Your task to perform on an android device: Go to Yahoo.com Image 0: 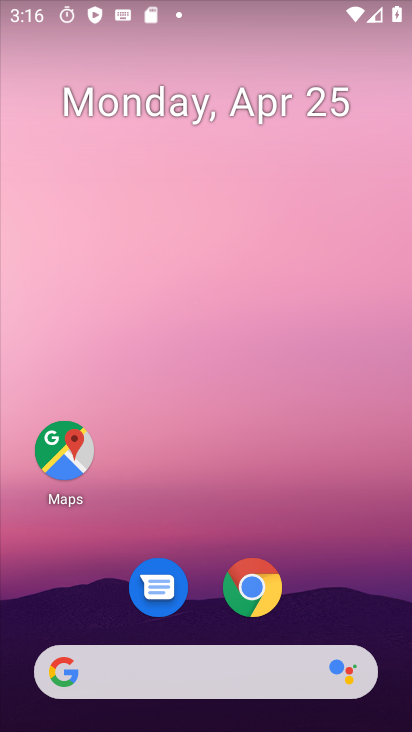
Step 0: click (247, 575)
Your task to perform on an android device: Go to Yahoo.com Image 1: 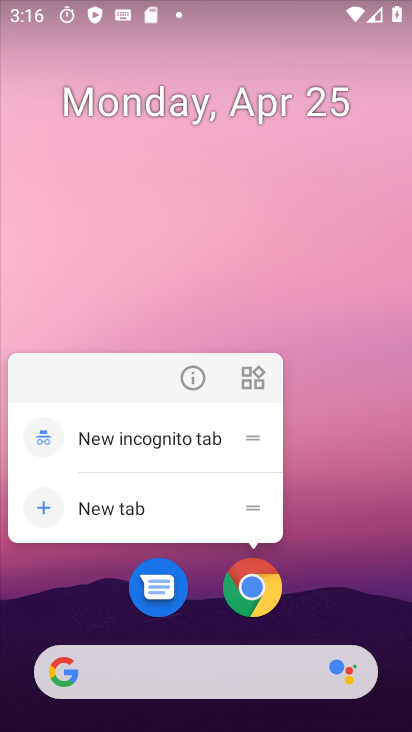
Step 1: click (251, 588)
Your task to perform on an android device: Go to Yahoo.com Image 2: 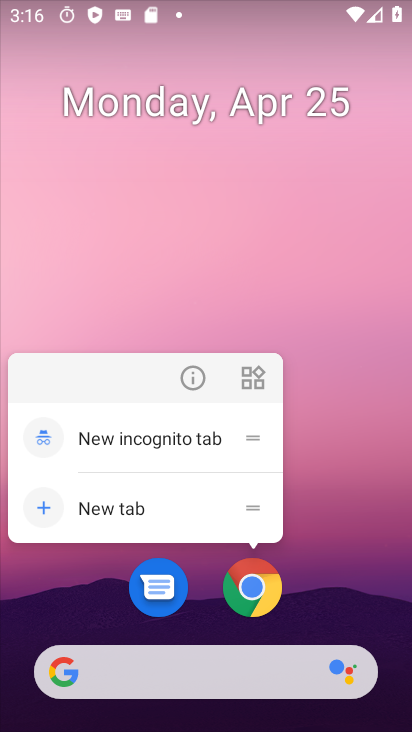
Step 2: drag from (348, 519) to (365, 90)
Your task to perform on an android device: Go to Yahoo.com Image 3: 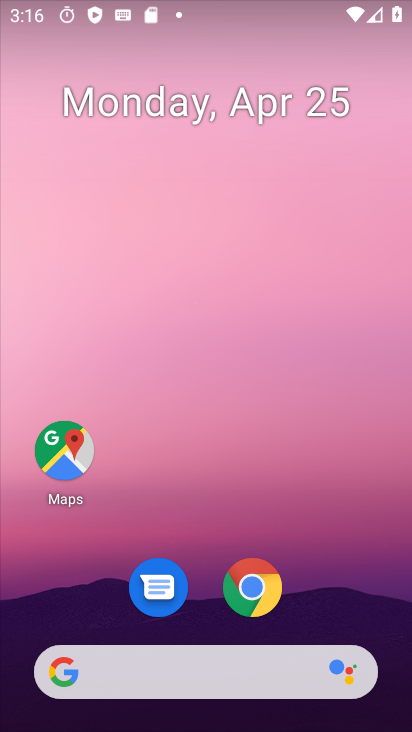
Step 3: drag from (326, 299) to (313, 99)
Your task to perform on an android device: Go to Yahoo.com Image 4: 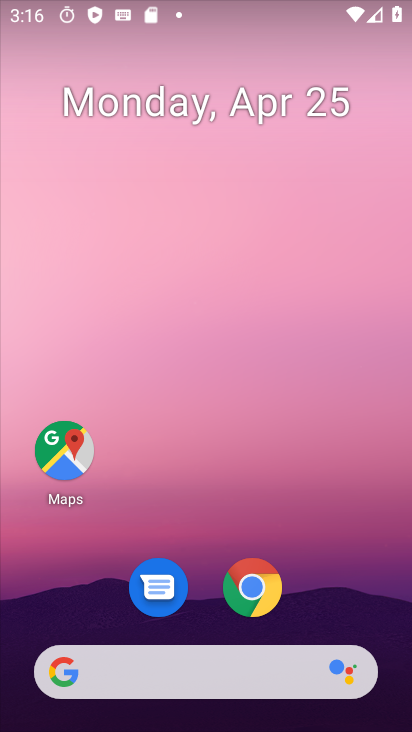
Step 4: drag from (326, 467) to (327, 77)
Your task to perform on an android device: Go to Yahoo.com Image 5: 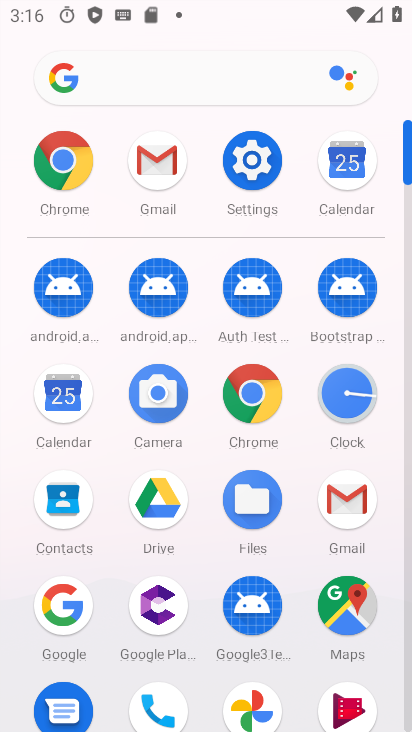
Step 5: click (248, 411)
Your task to perform on an android device: Go to Yahoo.com Image 6: 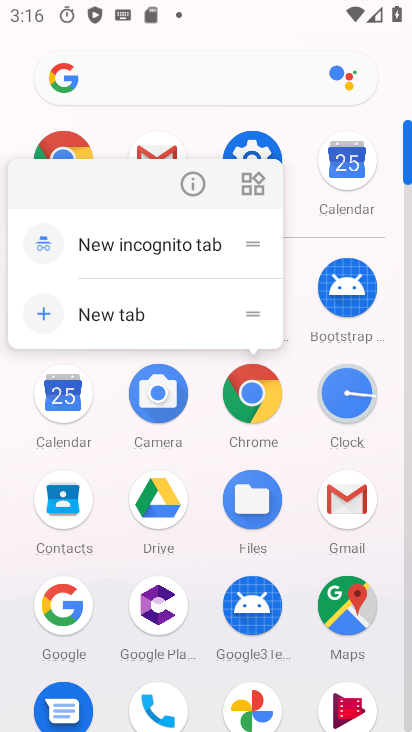
Step 6: click (252, 406)
Your task to perform on an android device: Go to Yahoo.com Image 7: 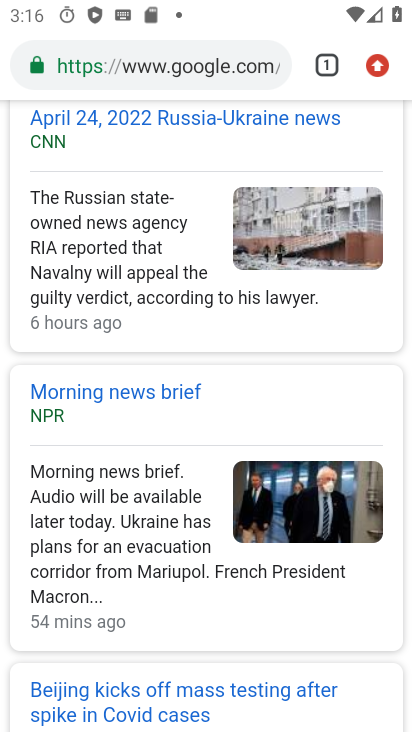
Step 7: click (169, 65)
Your task to perform on an android device: Go to Yahoo.com Image 8: 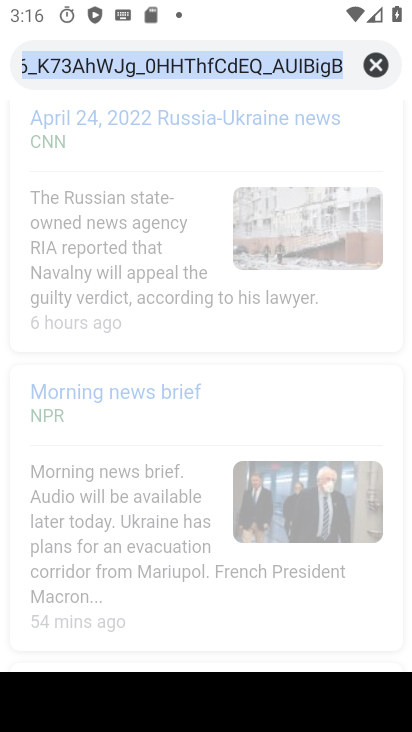
Step 8: type "yahoo.com"
Your task to perform on an android device: Go to Yahoo.com Image 9: 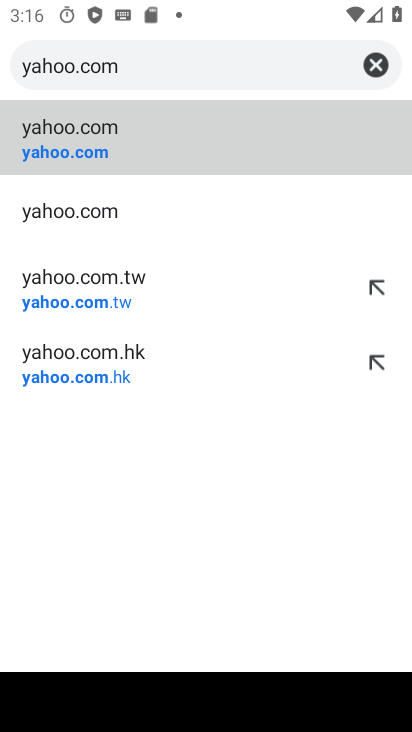
Step 9: click (38, 150)
Your task to perform on an android device: Go to Yahoo.com Image 10: 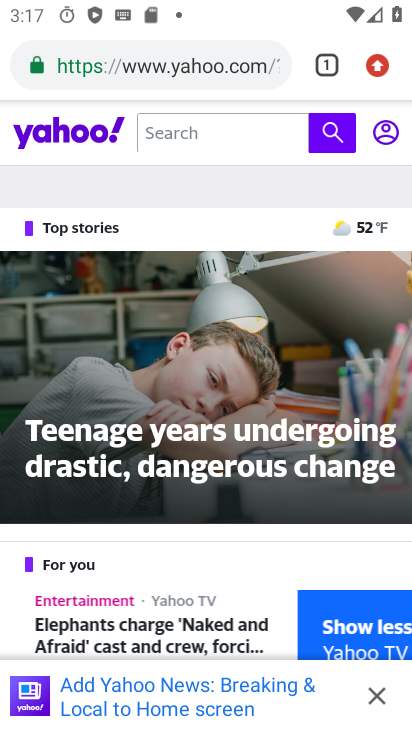
Step 10: task complete